Your task to perform on an android device: Open the calendar and show me this week's events Image 0: 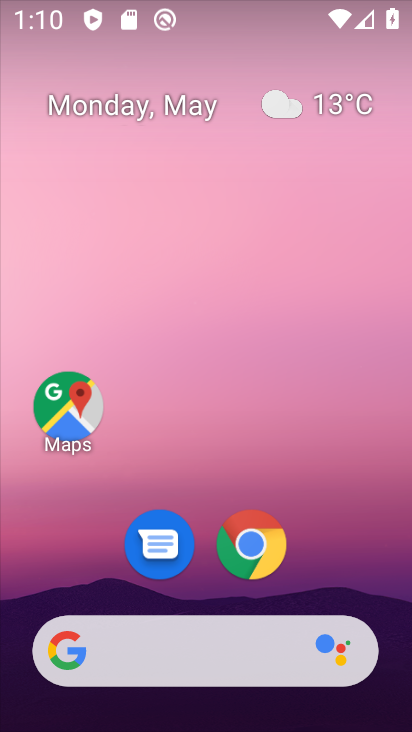
Step 0: drag from (390, 639) to (334, 21)
Your task to perform on an android device: Open the calendar and show me this week's events Image 1: 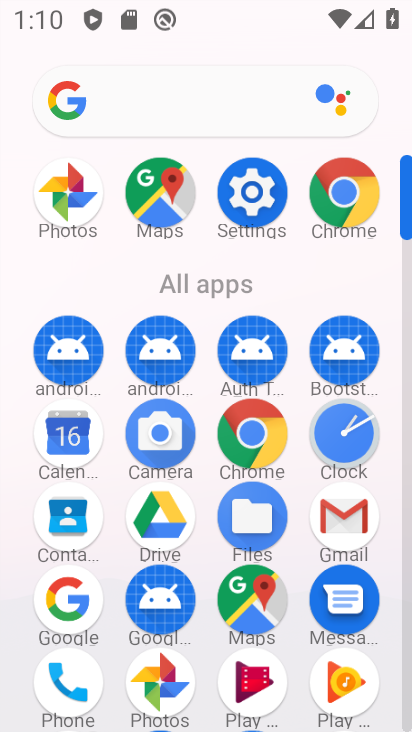
Step 1: click (63, 432)
Your task to perform on an android device: Open the calendar and show me this week's events Image 2: 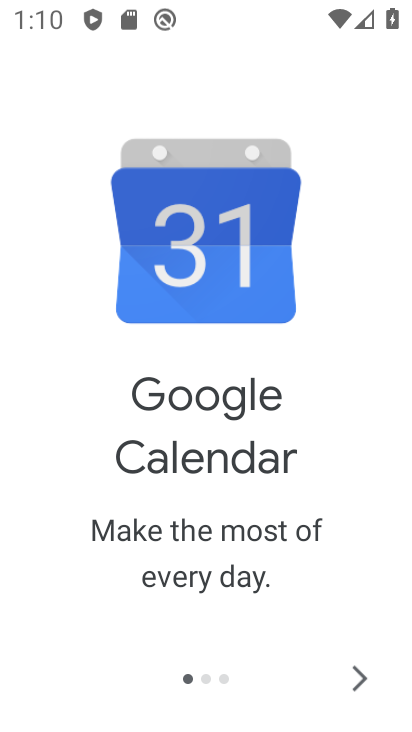
Step 2: click (357, 671)
Your task to perform on an android device: Open the calendar and show me this week's events Image 3: 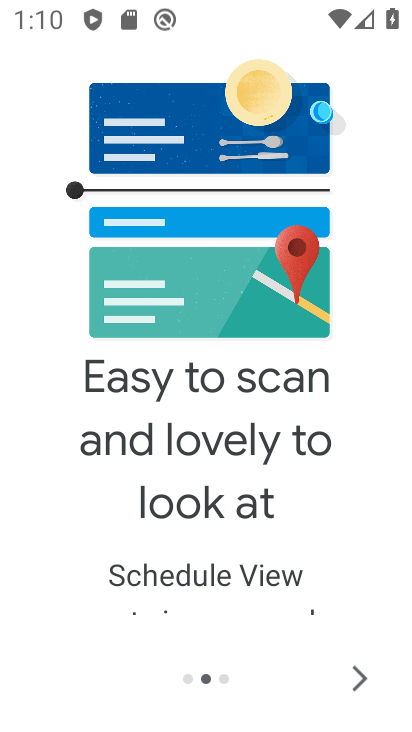
Step 3: click (352, 673)
Your task to perform on an android device: Open the calendar and show me this week's events Image 4: 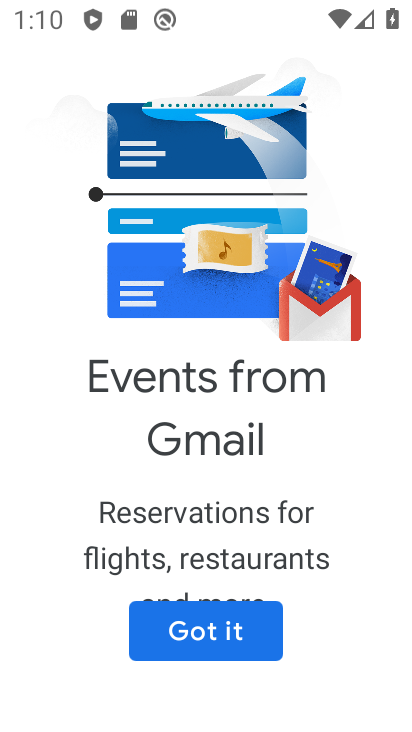
Step 4: click (205, 630)
Your task to perform on an android device: Open the calendar and show me this week's events Image 5: 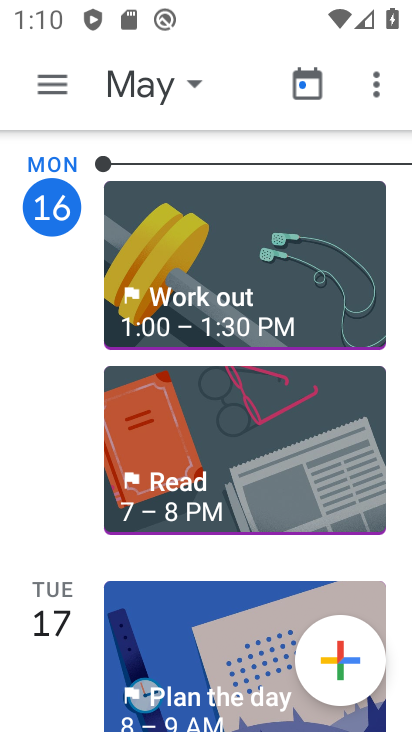
Step 5: click (49, 80)
Your task to perform on an android device: Open the calendar and show me this week's events Image 6: 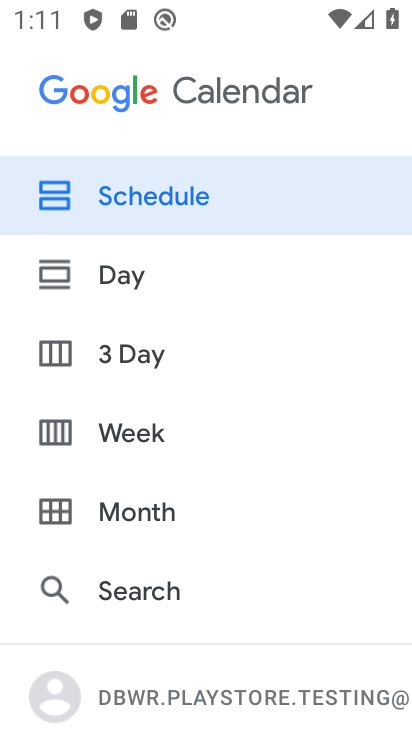
Step 6: click (130, 426)
Your task to perform on an android device: Open the calendar and show me this week's events Image 7: 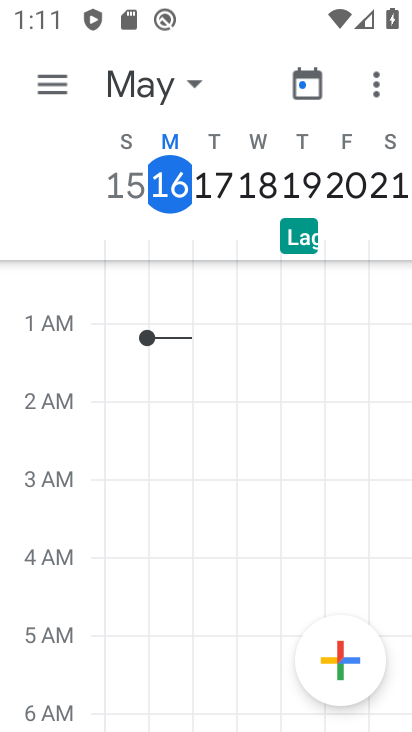
Step 7: task complete